Your task to perform on an android device: What is the recent news? Image 0: 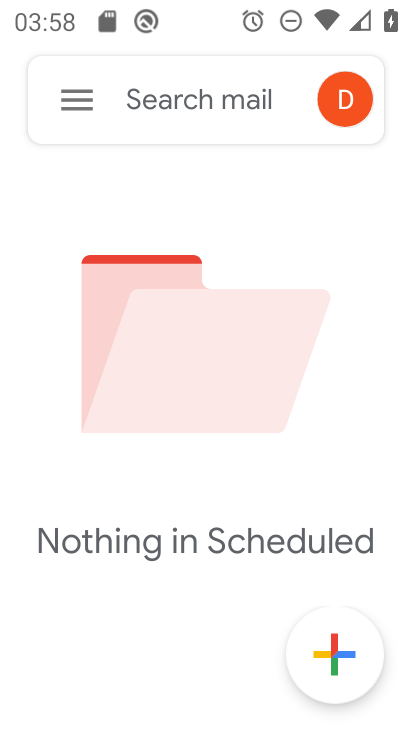
Step 0: press home button
Your task to perform on an android device: What is the recent news? Image 1: 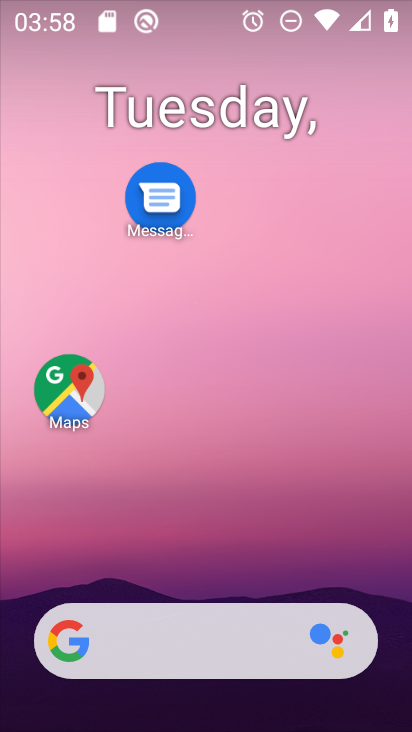
Step 1: drag from (216, 576) to (244, 136)
Your task to perform on an android device: What is the recent news? Image 2: 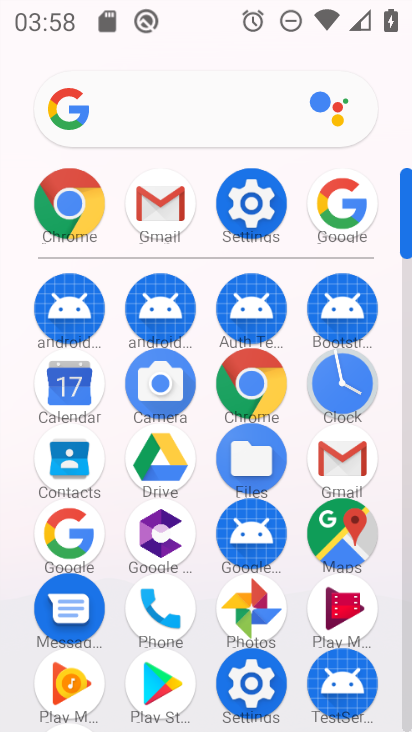
Step 2: click (82, 520)
Your task to perform on an android device: What is the recent news? Image 3: 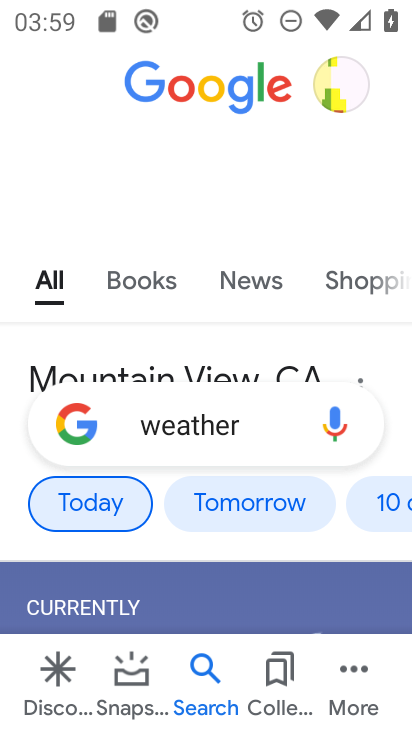
Step 3: click (246, 414)
Your task to perform on an android device: What is the recent news? Image 4: 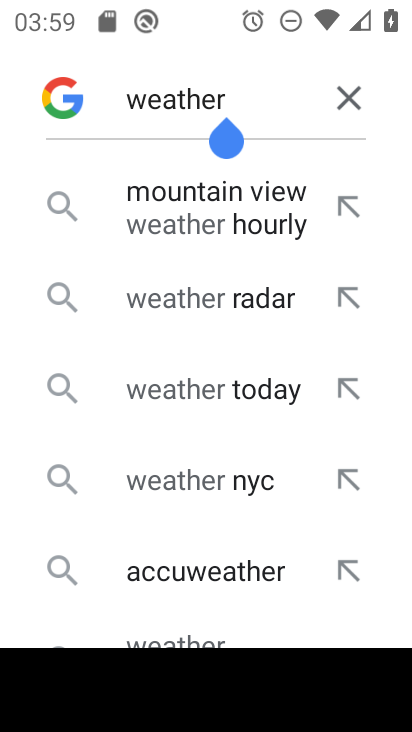
Step 4: click (347, 97)
Your task to perform on an android device: What is the recent news? Image 5: 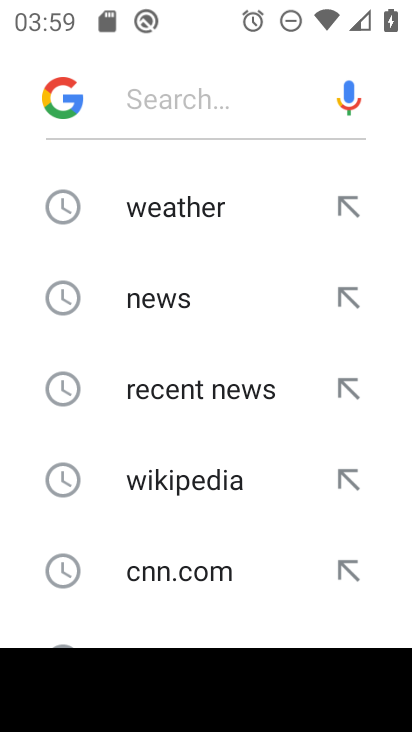
Step 5: click (191, 301)
Your task to perform on an android device: What is the recent news? Image 6: 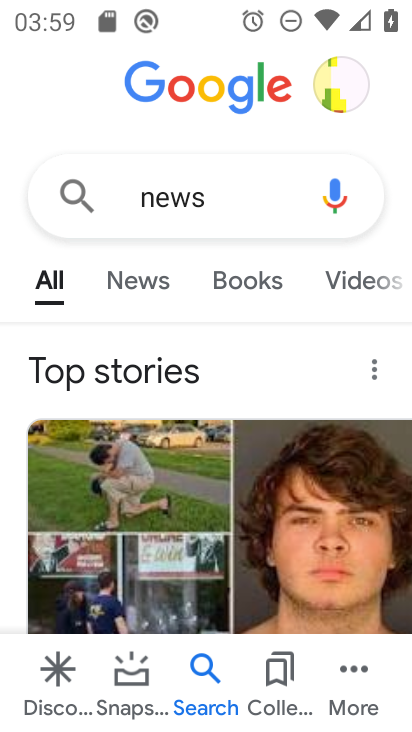
Step 6: click (152, 276)
Your task to perform on an android device: What is the recent news? Image 7: 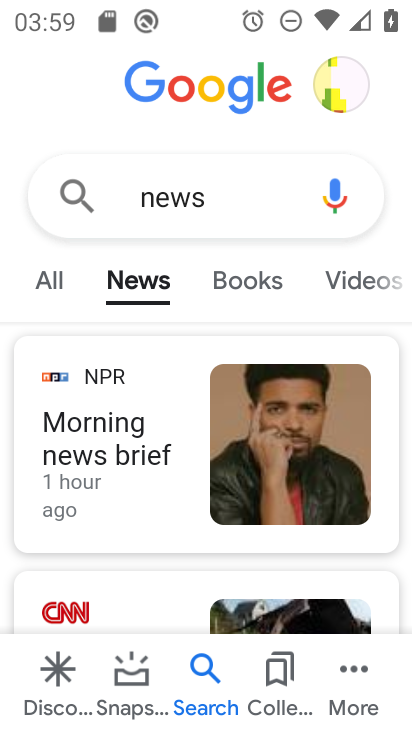
Step 7: task complete